Your task to perform on an android device: Open eBay Image 0: 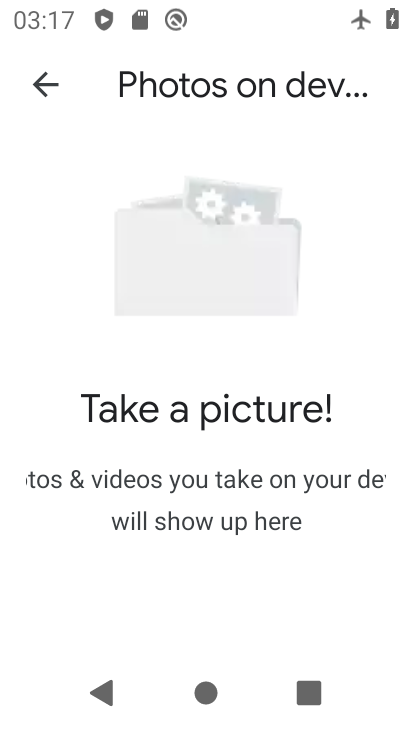
Step 0: press home button
Your task to perform on an android device: Open eBay Image 1: 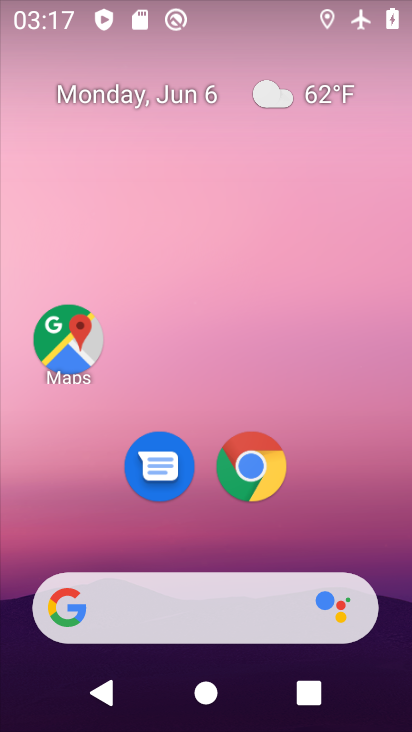
Step 1: drag from (340, 478) to (342, 86)
Your task to perform on an android device: Open eBay Image 2: 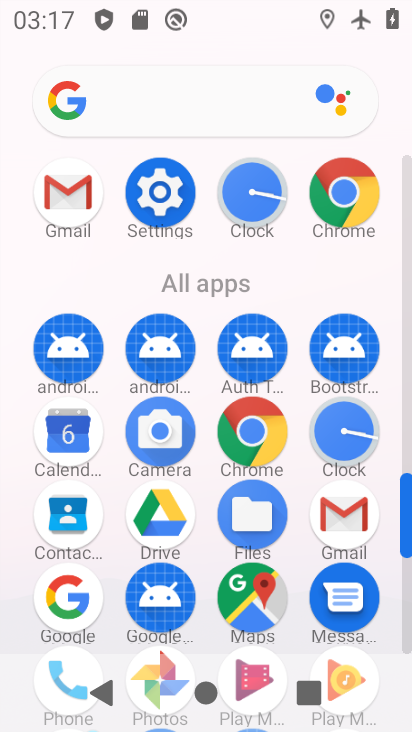
Step 2: click (345, 195)
Your task to perform on an android device: Open eBay Image 3: 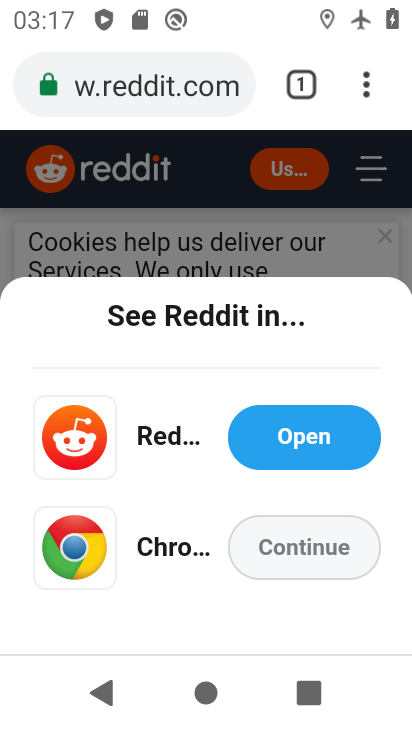
Step 3: click (191, 78)
Your task to perform on an android device: Open eBay Image 4: 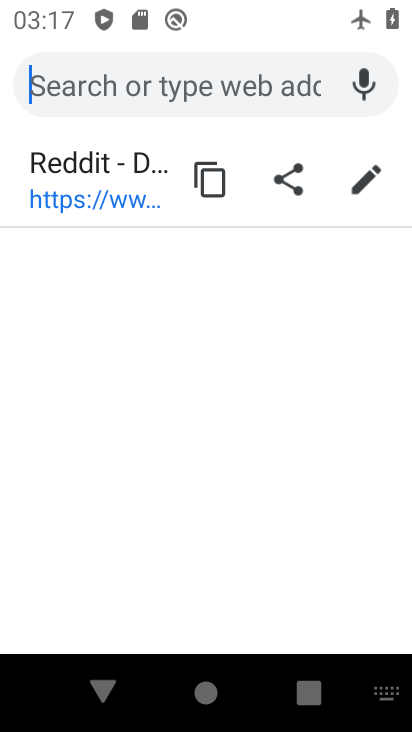
Step 4: type "ebay"
Your task to perform on an android device: Open eBay Image 5: 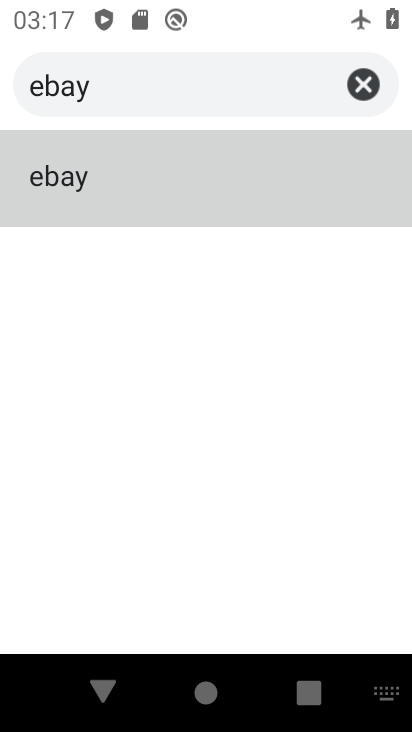
Step 5: click (83, 169)
Your task to perform on an android device: Open eBay Image 6: 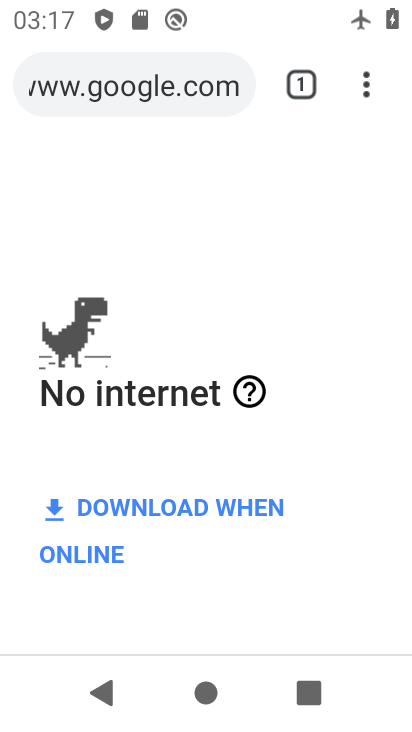
Step 6: task complete